Your task to perform on an android device: Turn off the flashlight Image 0: 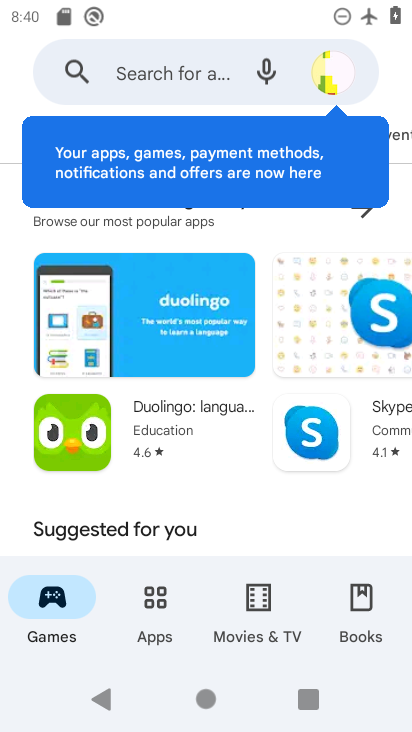
Step 0: press home button
Your task to perform on an android device: Turn off the flashlight Image 1: 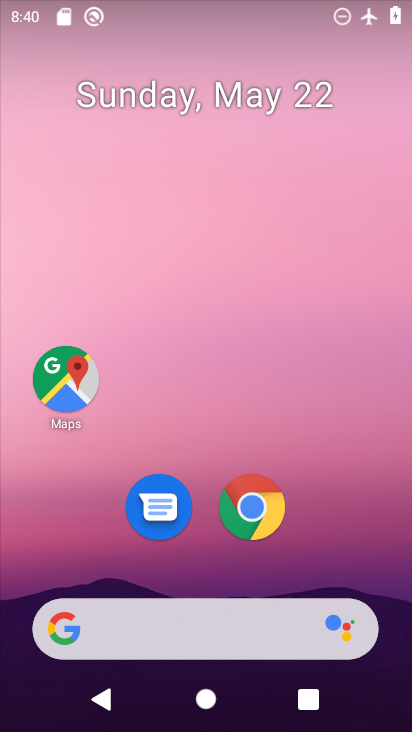
Step 1: task complete